Your task to perform on an android device: star an email in the gmail app Image 0: 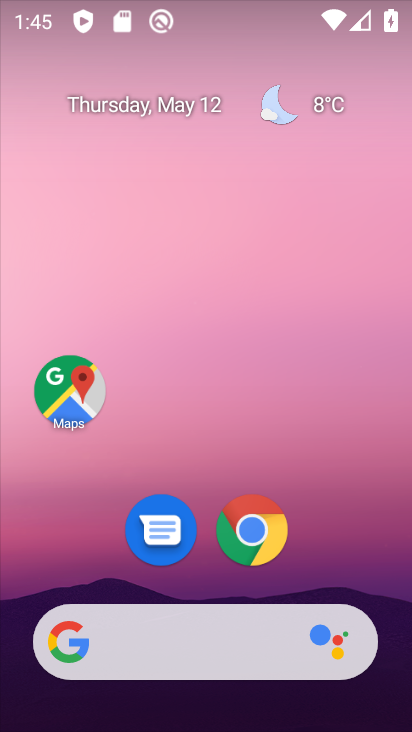
Step 0: drag from (10, 573) to (177, 296)
Your task to perform on an android device: star an email in the gmail app Image 1: 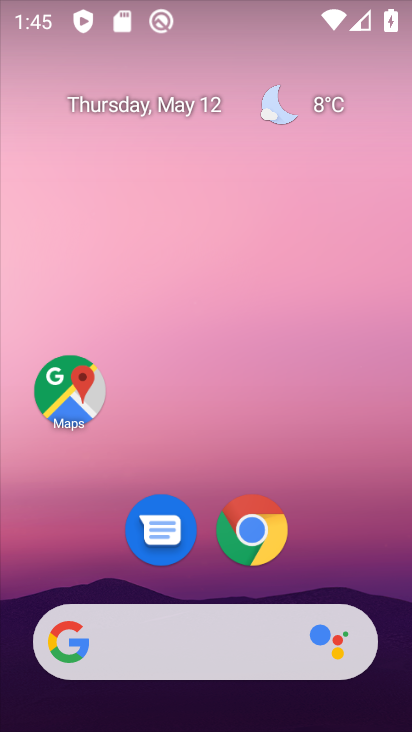
Step 1: drag from (25, 636) to (407, 172)
Your task to perform on an android device: star an email in the gmail app Image 2: 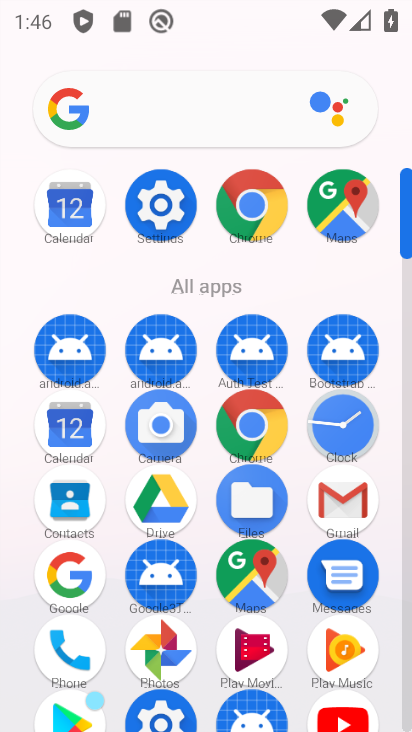
Step 2: click (327, 494)
Your task to perform on an android device: star an email in the gmail app Image 3: 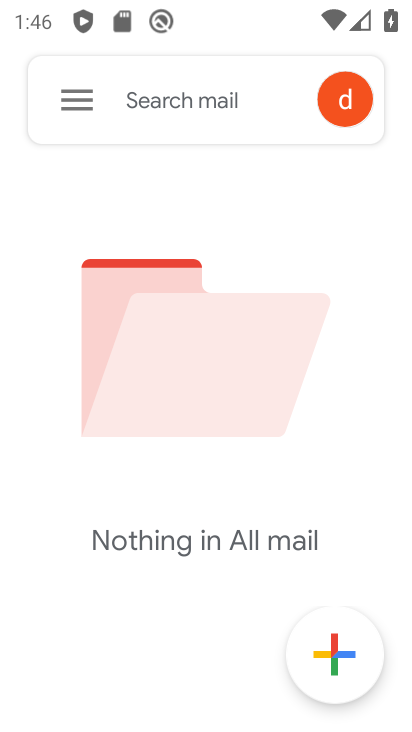
Step 3: click (61, 95)
Your task to perform on an android device: star an email in the gmail app Image 4: 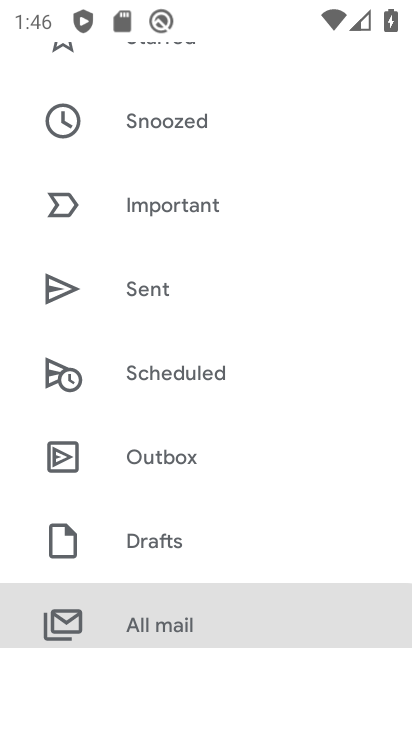
Step 4: click (98, 620)
Your task to perform on an android device: star an email in the gmail app Image 5: 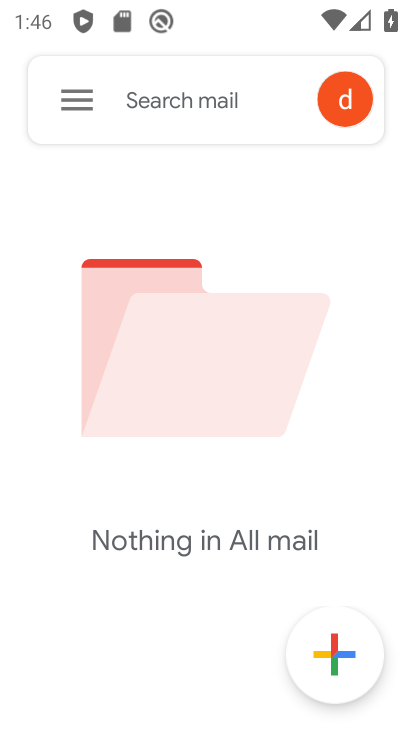
Step 5: task complete